Your task to perform on an android device: Show the shopping cart on target.com. Search for alienware aurora on target.com, select the first entry, add it to the cart, then select checkout. Image 0: 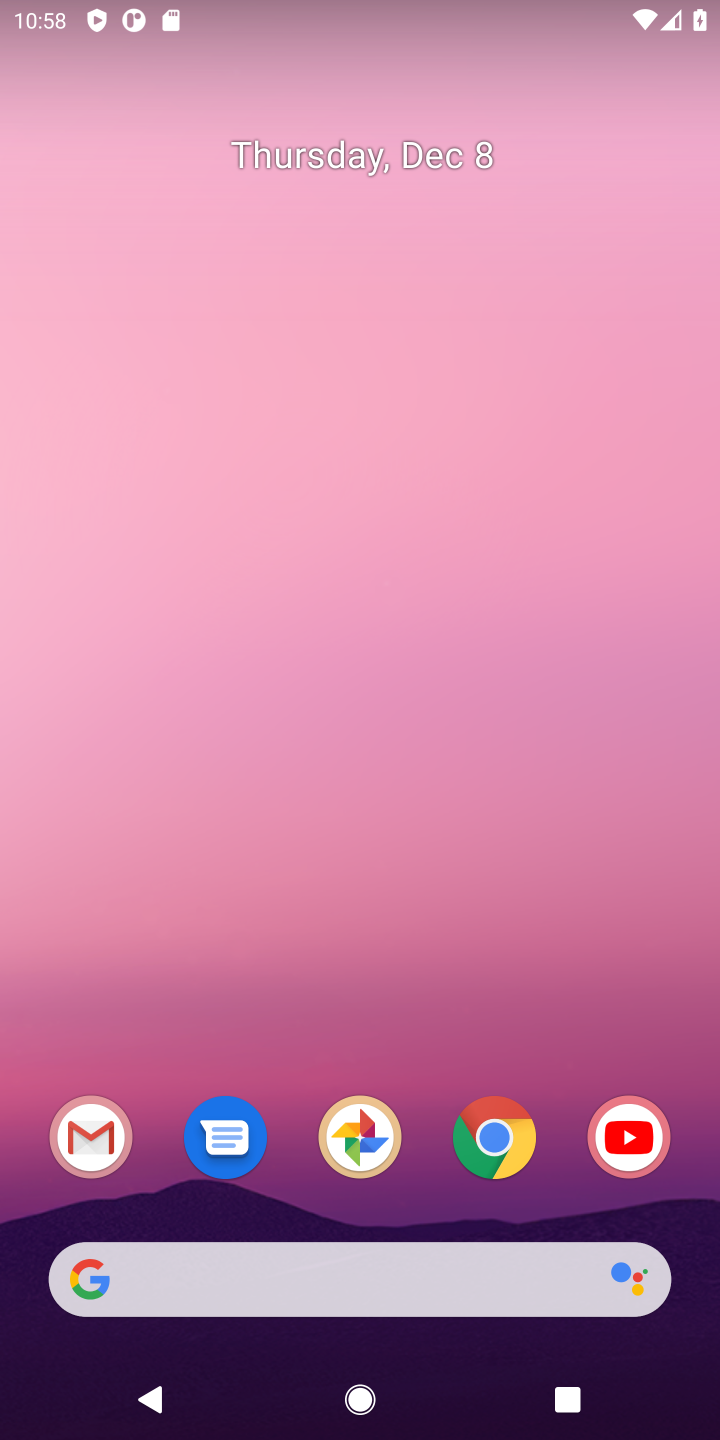
Step 0: click (492, 1133)
Your task to perform on an android device: Show the shopping cart on target.com. Search for alienware aurora on target.com, select the first entry, add it to the cart, then select checkout. Image 1: 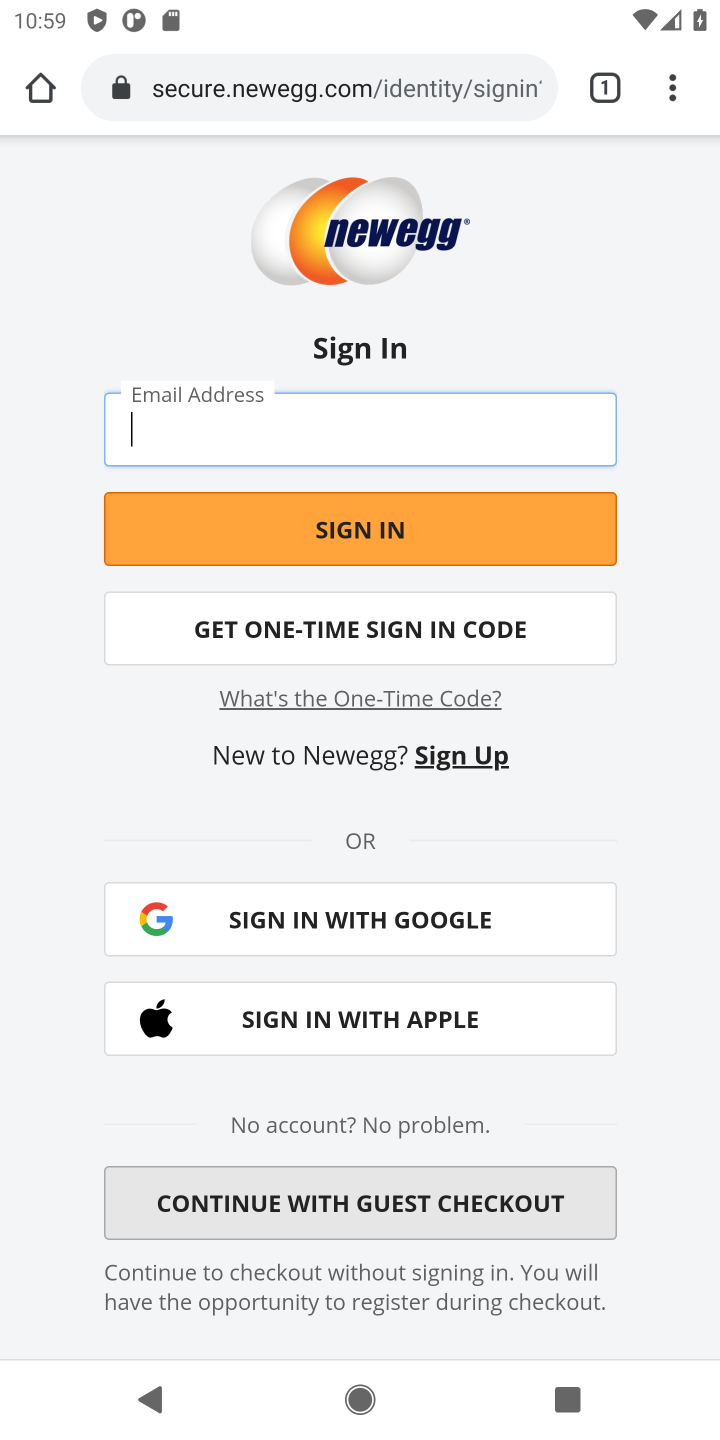
Step 1: click (286, 74)
Your task to perform on an android device: Show the shopping cart on target.com. Search for alienware aurora on target.com, select the first entry, add it to the cart, then select checkout. Image 2: 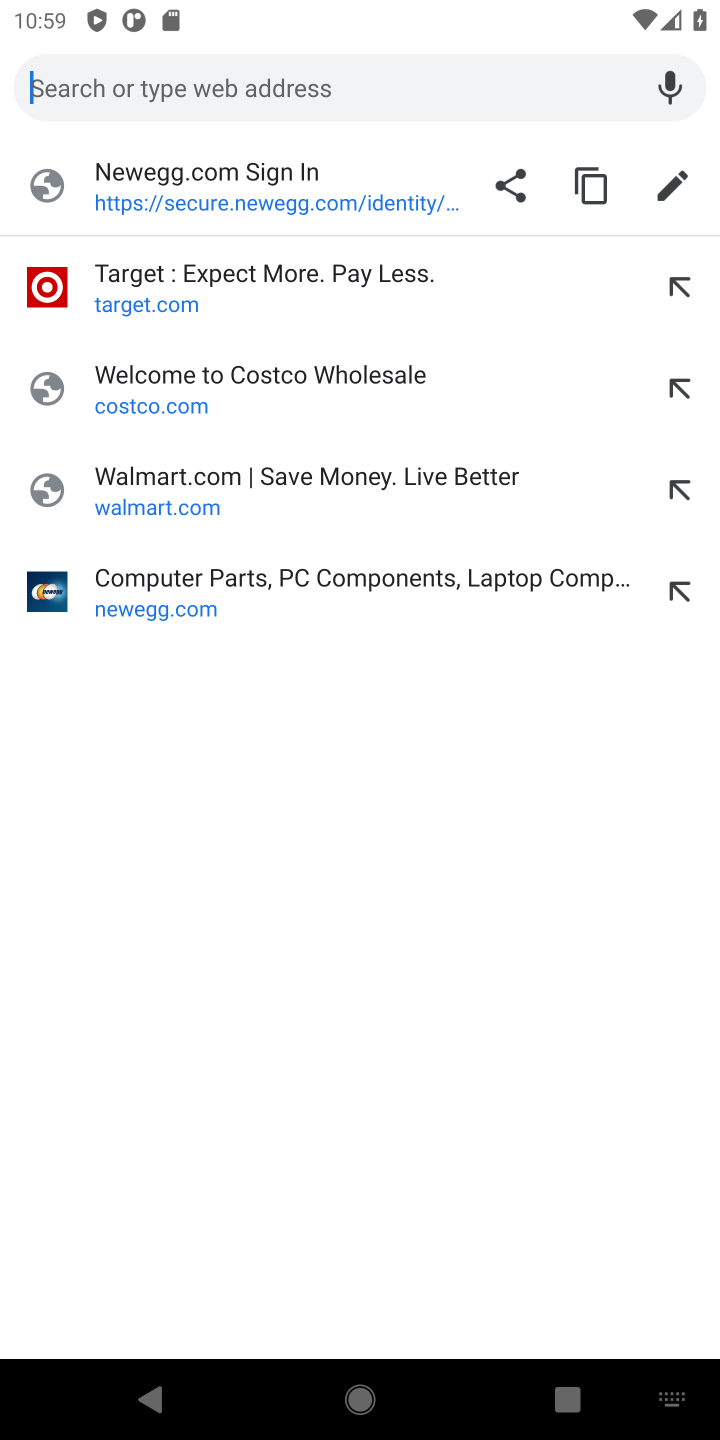
Step 2: type "target"
Your task to perform on an android device: Show the shopping cart on target.com. Search for alienware aurora on target.com, select the first entry, add it to the cart, then select checkout. Image 3: 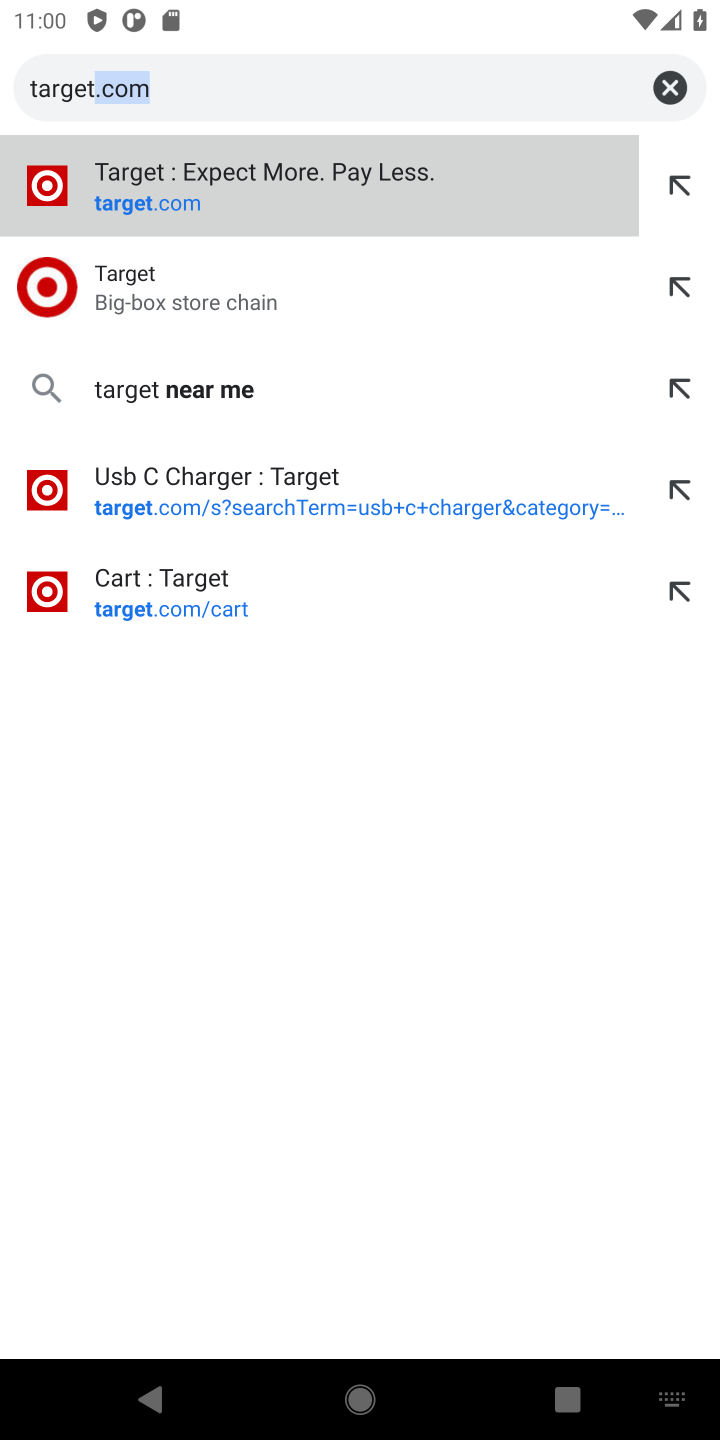
Step 3: click (142, 198)
Your task to perform on an android device: Show the shopping cart on target.com. Search for alienware aurora on target.com, select the first entry, add it to the cart, then select checkout. Image 4: 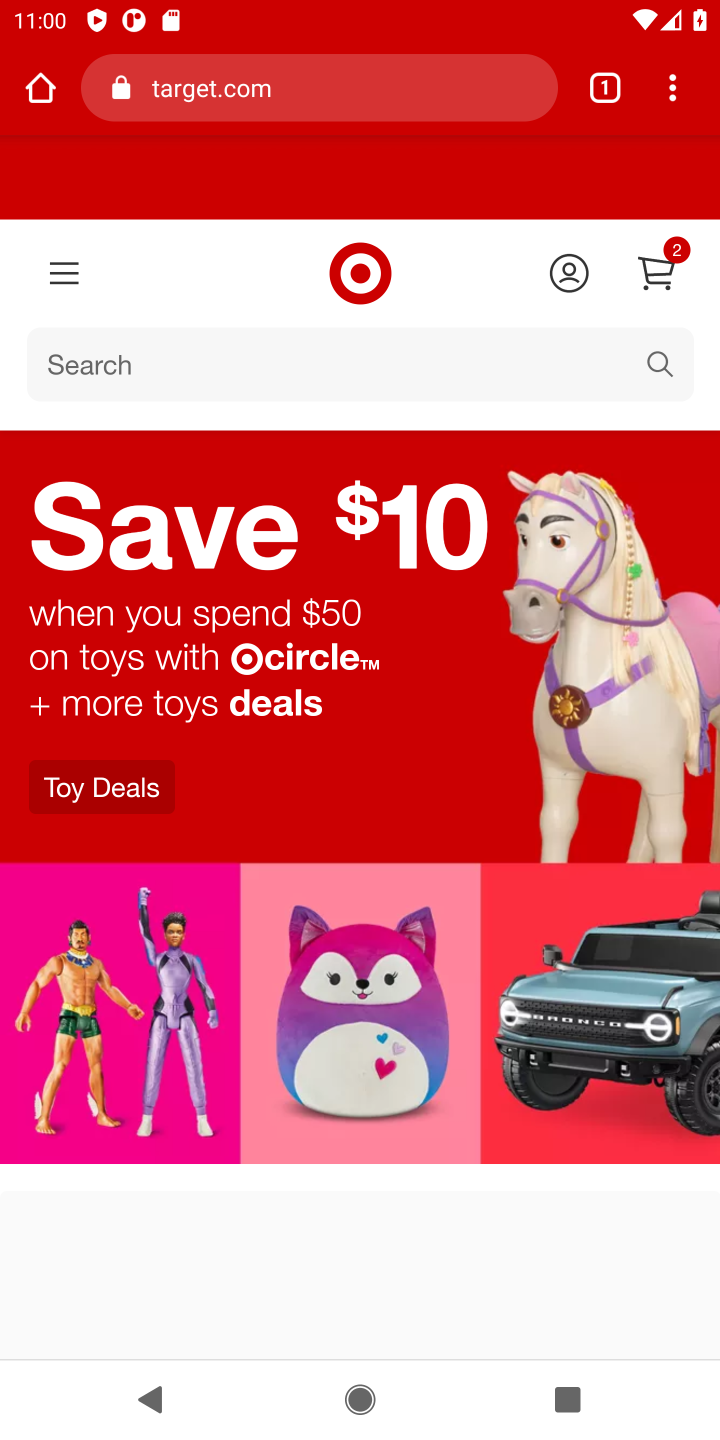
Step 4: click (392, 342)
Your task to perform on an android device: Show the shopping cart on target.com. Search for alienware aurora on target.com, select the first entry, add it to the cart, then select checkout. Image 5: 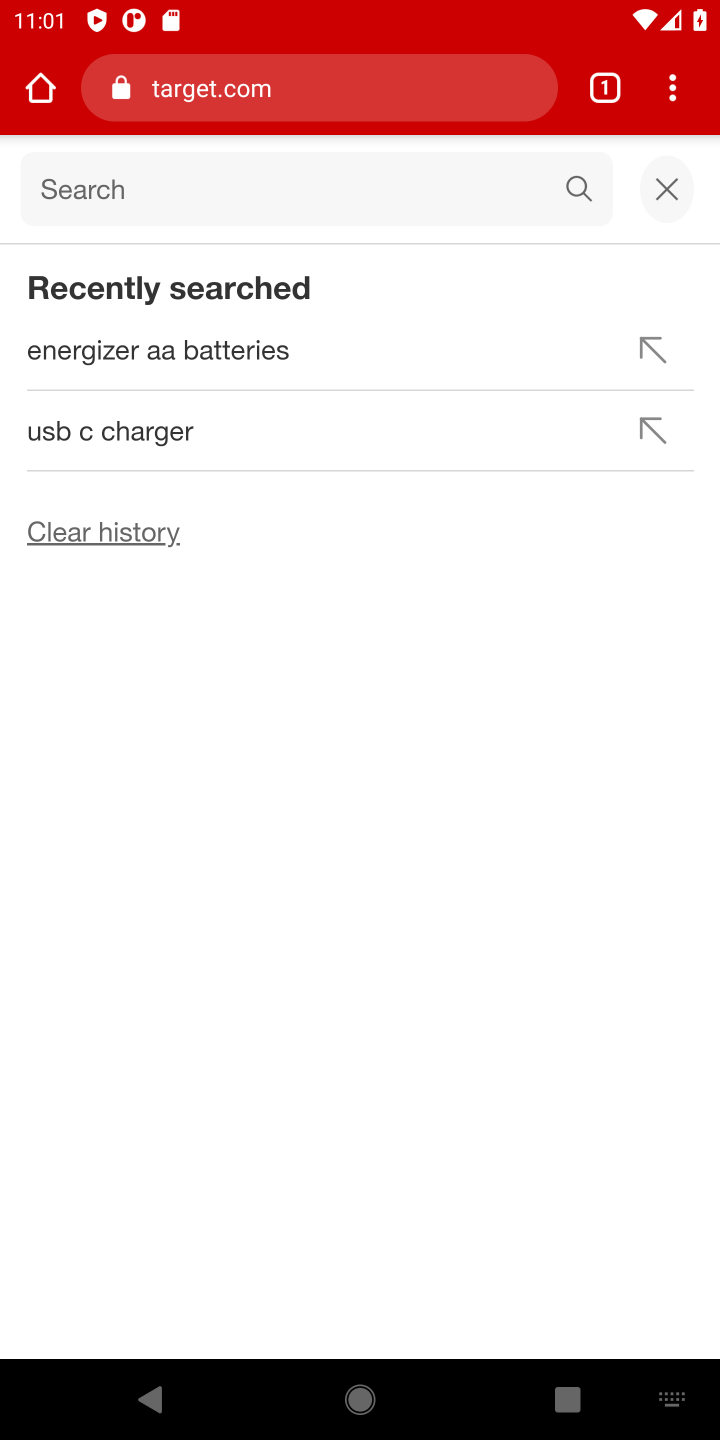
Step 5: type "alienware aurora"
Your task to perform on an android device: Show the shopping cart on target.com. Search for alienware aurora on target.com, select the first entry, add it to the cart, then select checkout. Image 6: 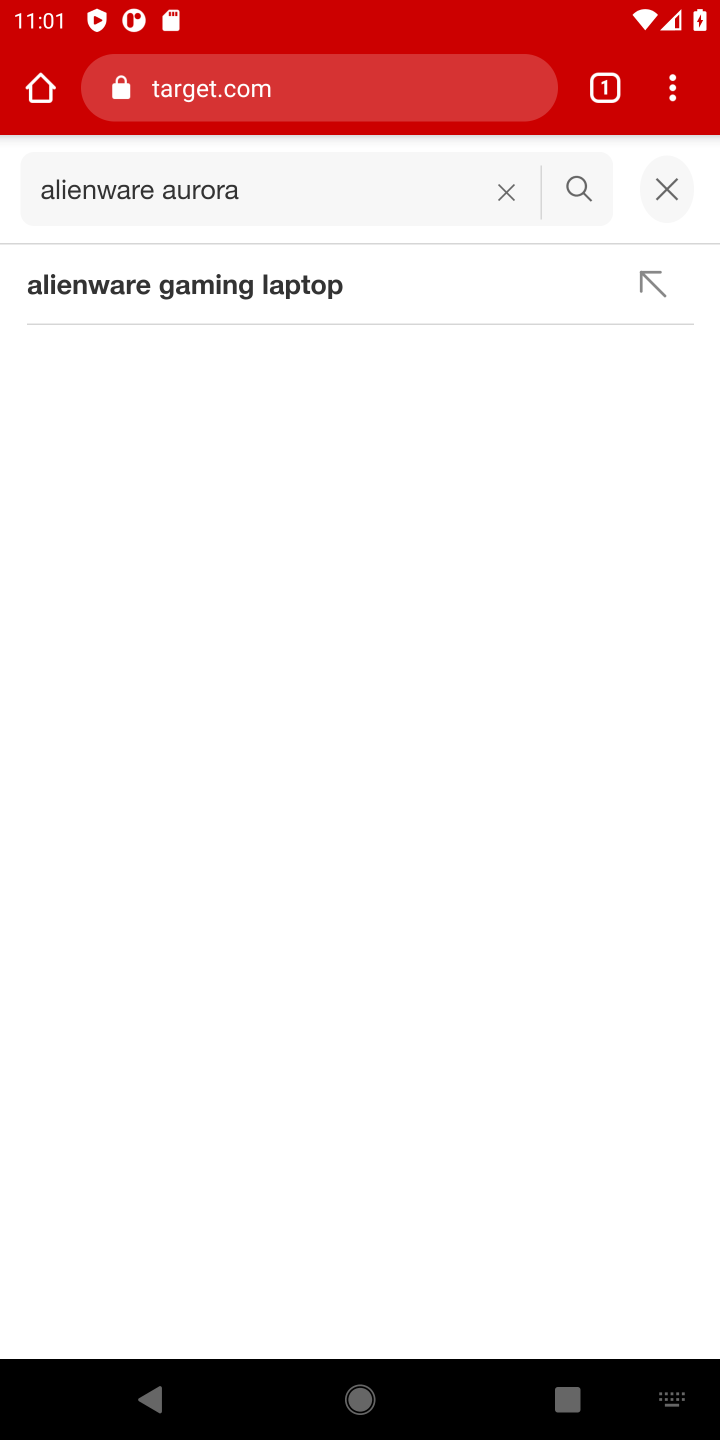
Step 6: click (232, 286)
Your task to perform on an android device: Show the shopping cart on target.com. Search for alienware aurora on target.com, select the first entry, add it to the cart, then select checkout. Image 7: 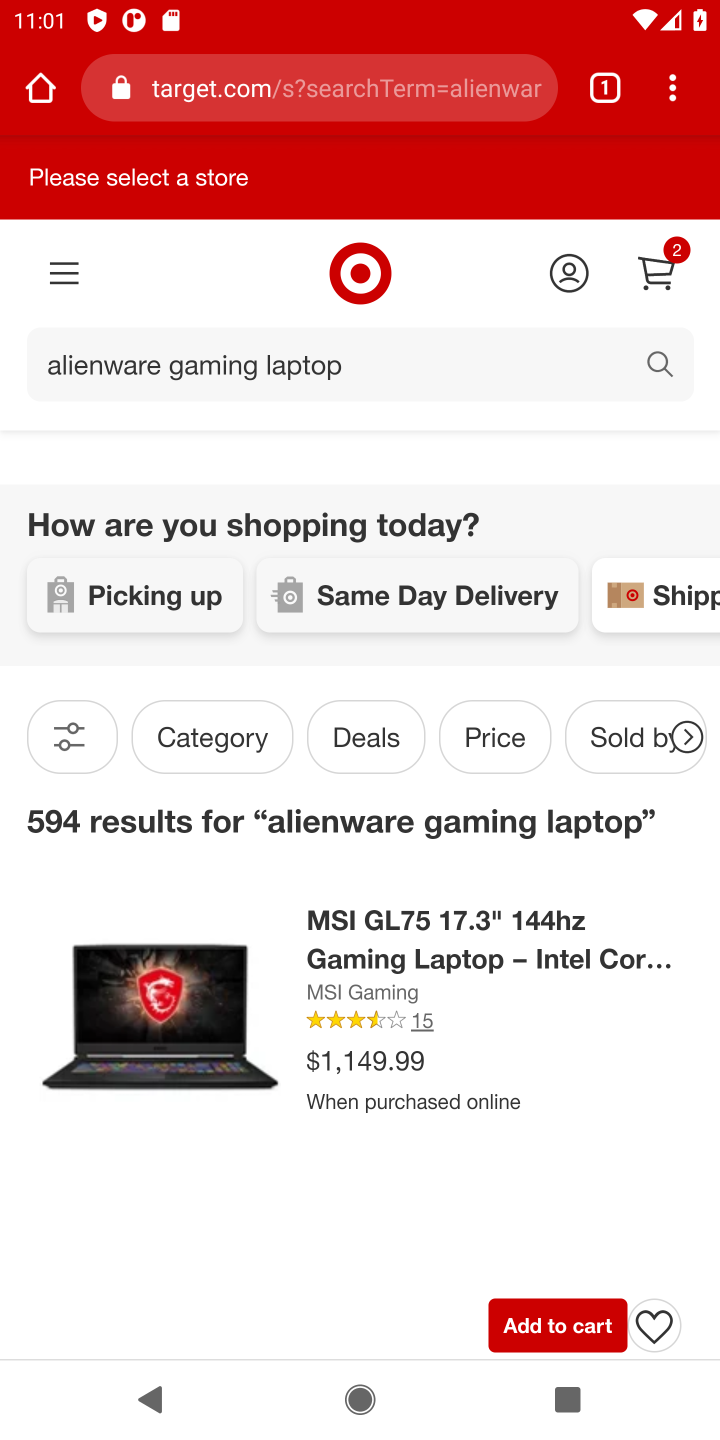
Step 7: click (558, 1330)
Your task to perform on an android device: Show the shopping cart on target.com. Search for alienware aurora on target.com, select the first entry, add it to the cart, then select checkout. Image 8: 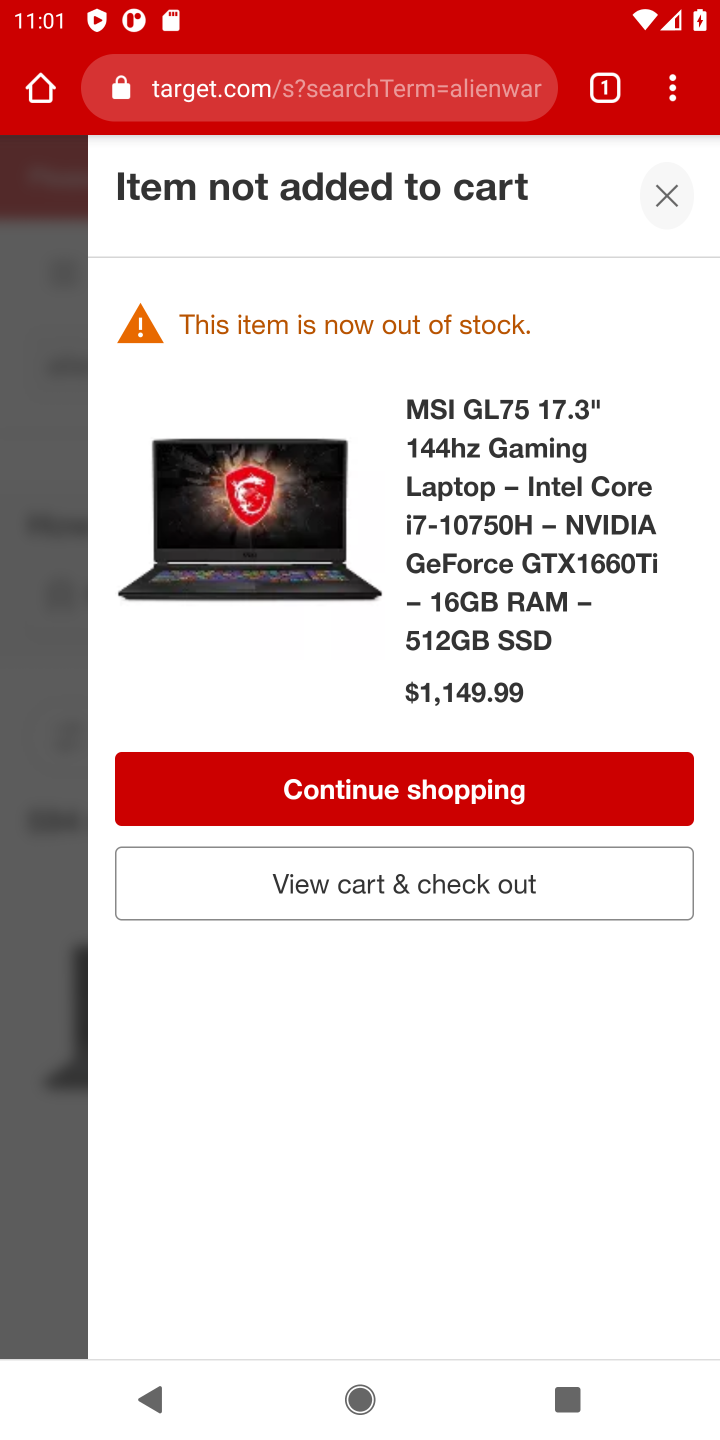
Step 8: click (410, 894)
Your task to perform on an android device: Show the shopping cart on target.com. Search for alienware aurora on target.com, select the first entry, add it to the cart, then select checkout. Image 9: 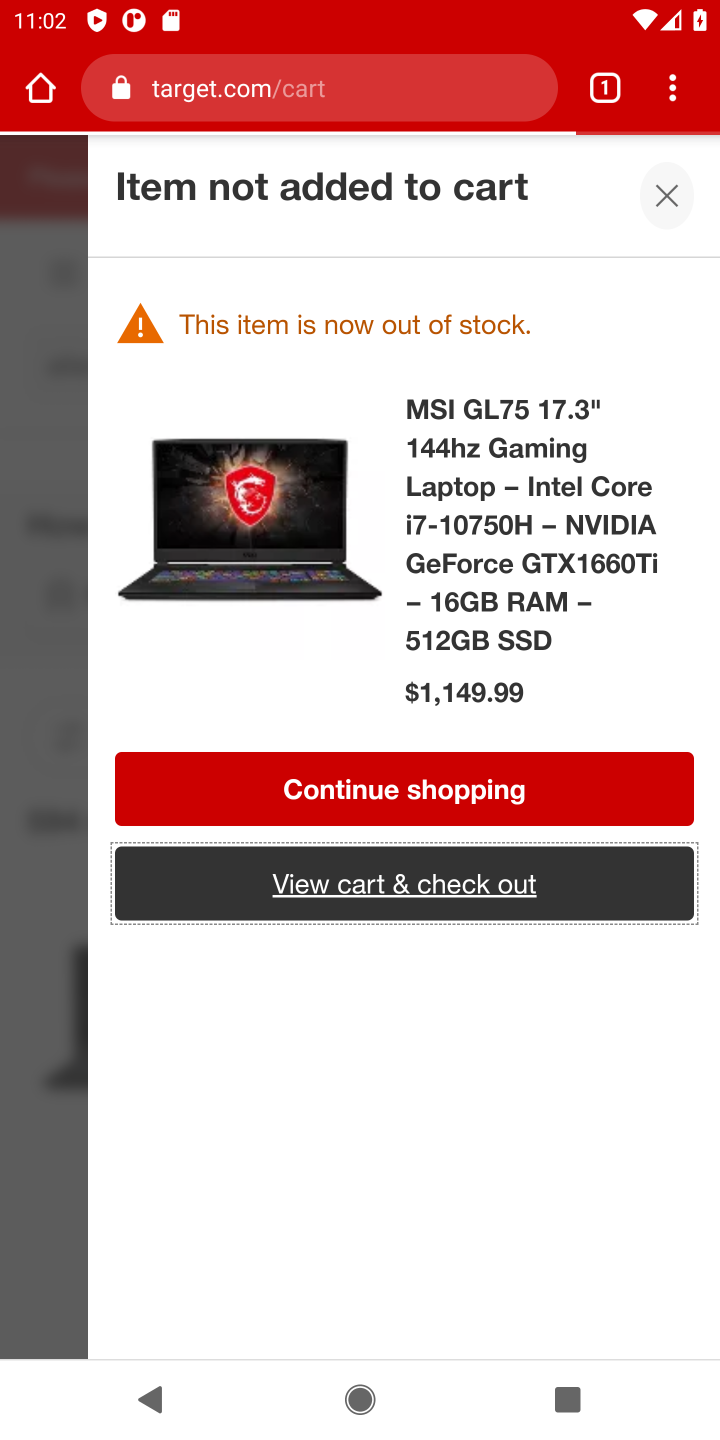
Step 9: task complete